Your task to perform on an android device: visit the assistant section in the google photos Image 0: 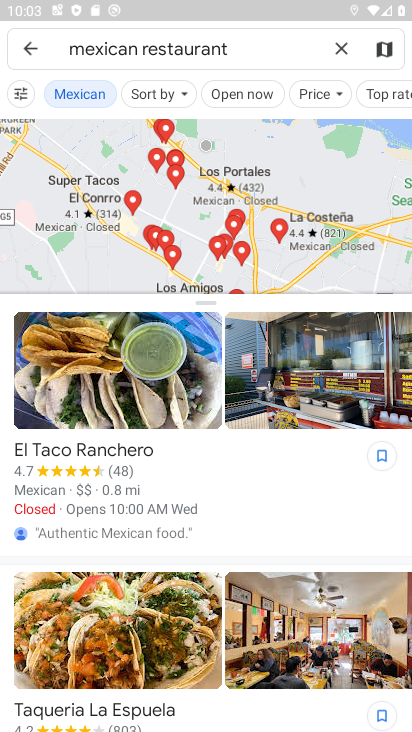
Step 0: press home button
Your task to perform on an android device: visit the assistant section in the google photos Image 1: 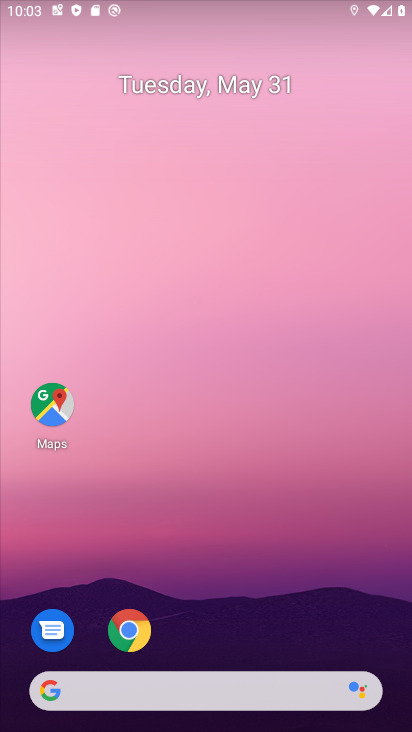
Step 1: drag from (227, 612) to (357, 107)
Your task to perform on an android device: visit the assistant section in the google photos Image 2: 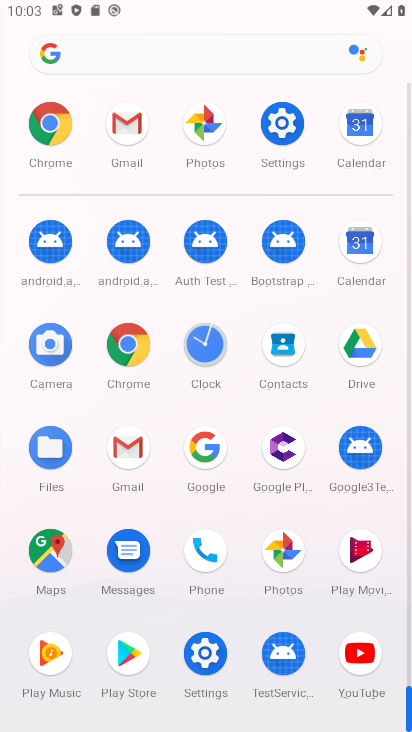
Step 2: click (284, 549)
Your task to perform on an android device: visit the assistant section in the google photos Image 3: 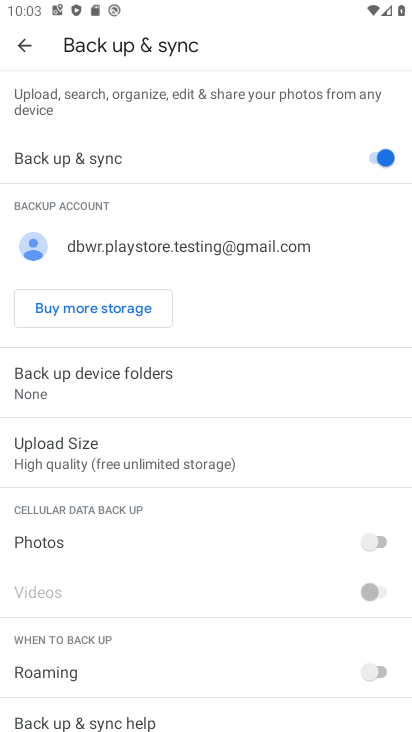
Step 3: click (18, 55)
Your task to perform on an android device: visit the assistant section in the google photos Image 4: 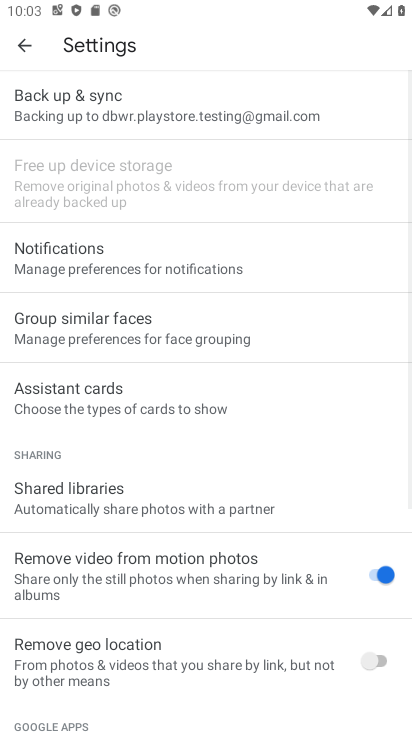
Step 4: click (25, 52)
Your task to perform on an android device: visit the assistant section in the google photos Image 5: 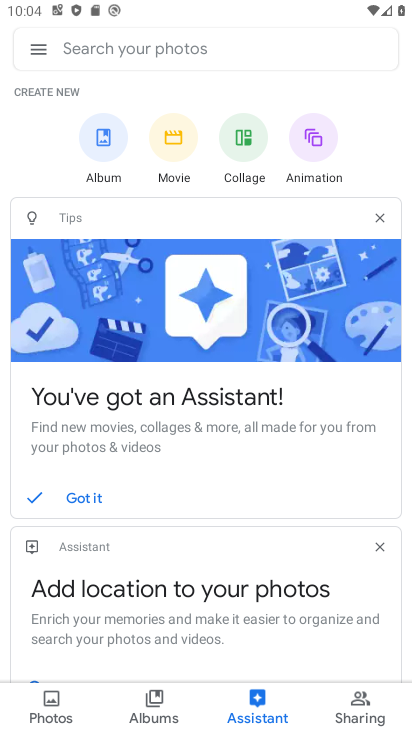
Step 5: task complete